Your task to perform on an android device: Open Chrome and go to settings Image 0: 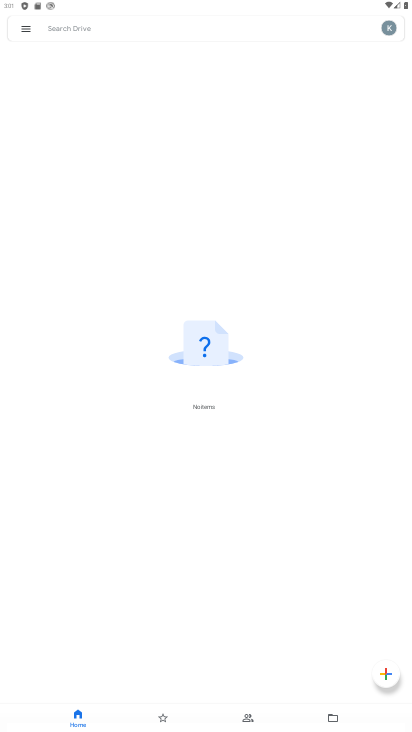
Step 0: press home button
Your task to perform on an android device: Open Chrome and go to settings Image 1: 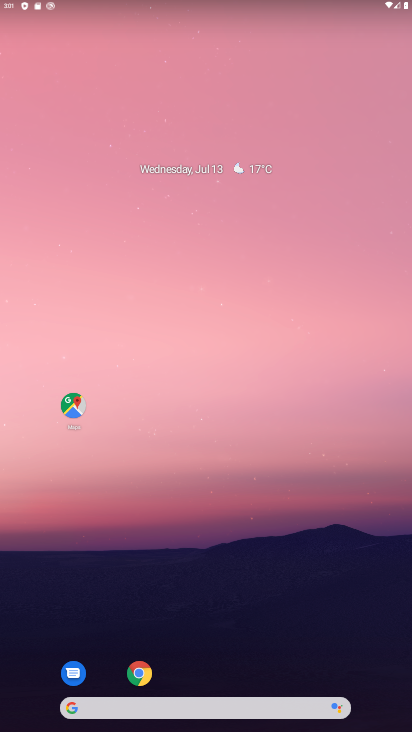
Step 1: drag from (262, 591) to (237, 69)
Your task to perform on an android device: Open Chrome and go to settings Image 2: 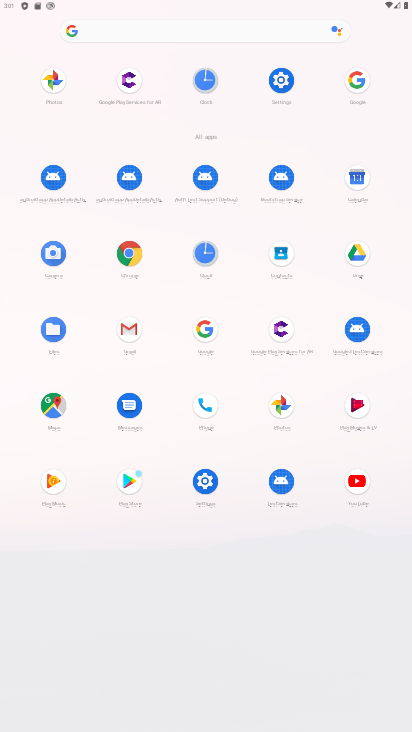
Step 2: click (122, 246)
Your task to perform on an android device: Open Chrome and go to settings Image 3: 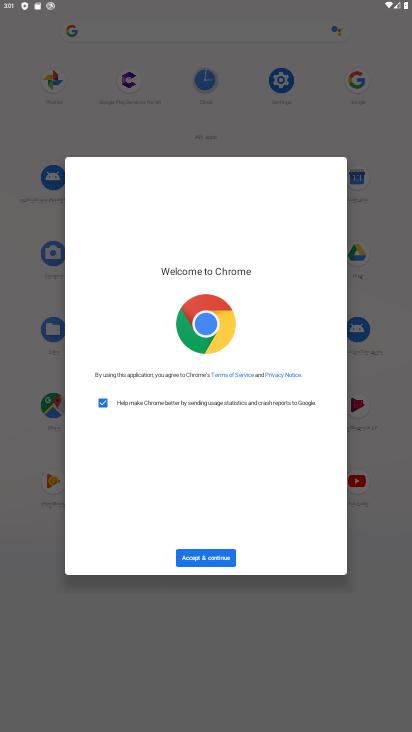
Step 3: click (193, 560)
Your task to perform on an android device: Open Chrome and go to settings Image 4: 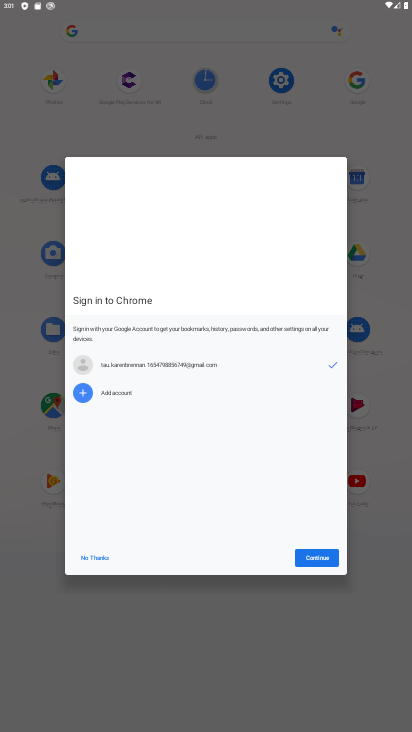
Step 4: click (81, 558)
Your task to perform on an android device: Open Chrome and go to settings Image 5: 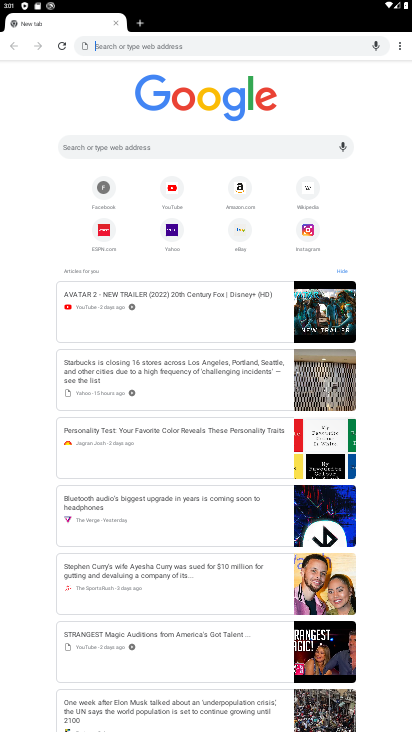
Step 5: task complete